Your task to perform on an android device: Open the stopwatch Image 0: 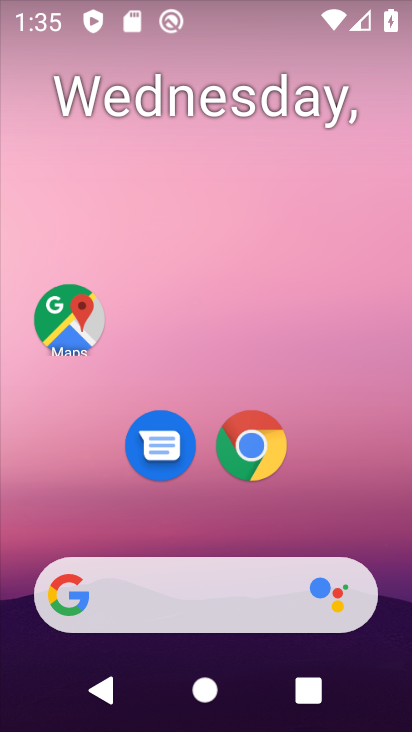
Step 0: press home button
Your task to perform on an android device: Open the stopwatch Image 1: 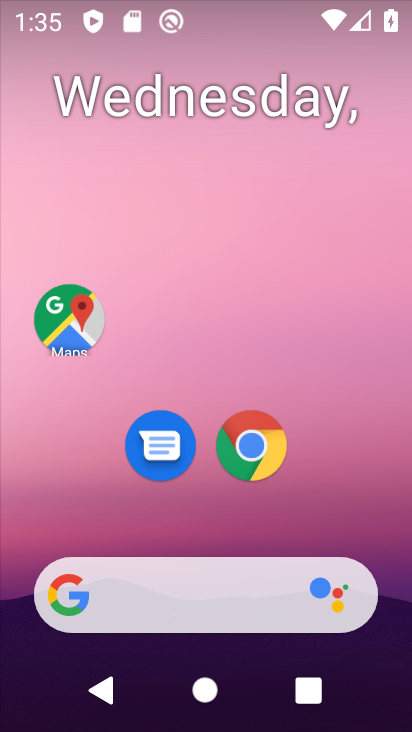
Step 1: drag from (382, 494) to (325, 0)
Your task to perform on an android device: Open the stopwatch Image 2: 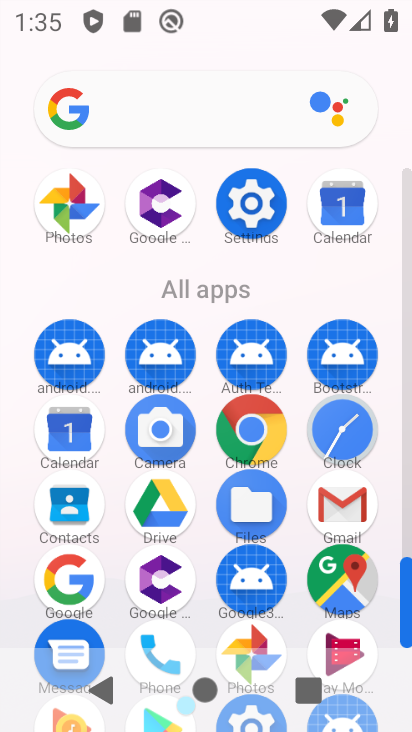
Step 2: click (380, 437)
Your task to perform on an android device: Open the stopwatch Image 3: 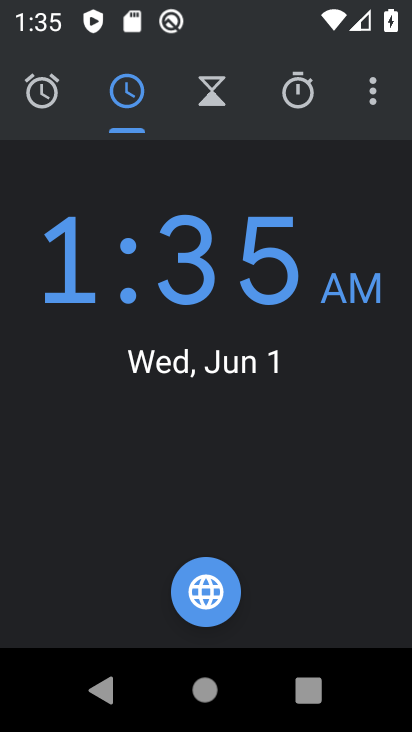
Step 3: click (323, 95)
Your task to perform on an android device: Open the stopwatch Image 4: 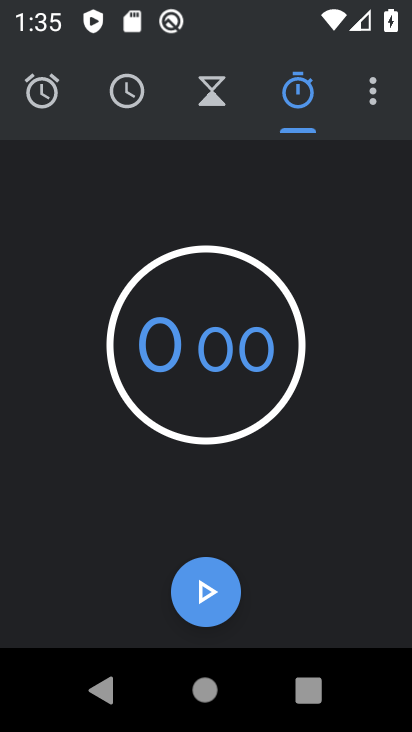
Step 4: task complete